Your task to perform on an android device: all mails in gmail Image 0: 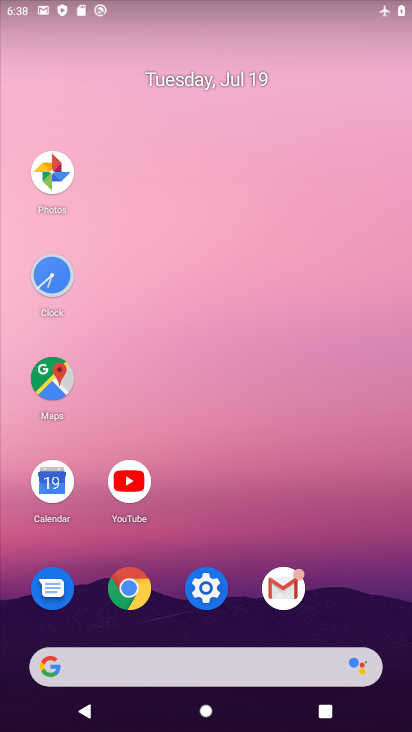
Step 0: click (292, 586)
Your task to perform on an android device: all mails in gmail Image 1: 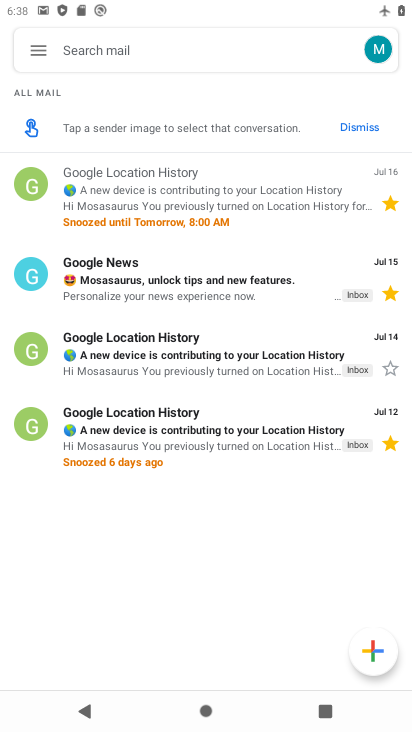
Step 1: task complete